Your task to perform on an android device: open a new tab in the chrome app Image 0: 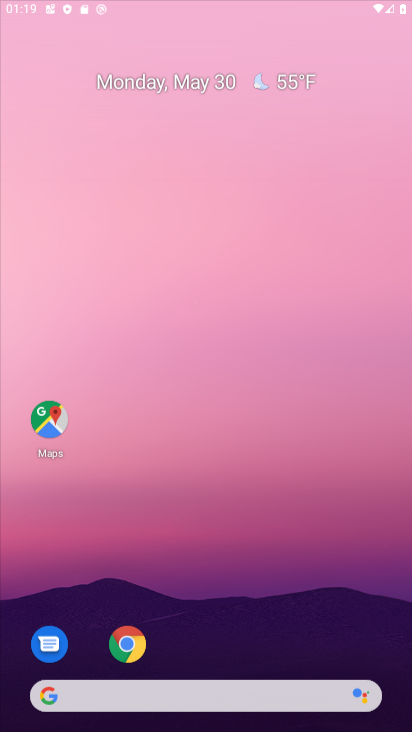
Step 0: click (283, 115)
Your task to perform on an android device: open a new tab in the chrome app Image 1: 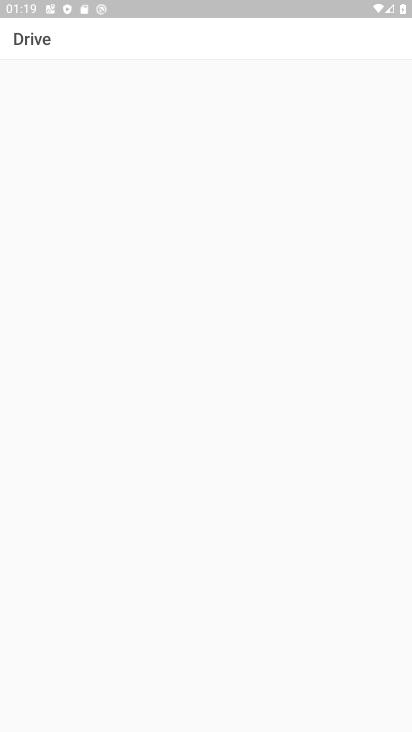
Step 1: press home button
Your task to perform on an android device: open a new tab in the chrome app Image 2: 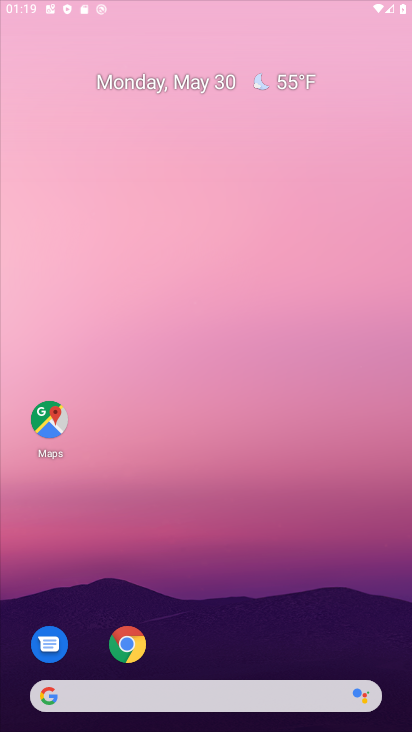
Step 2: drag from (294, 652) to (272, 262)
Your task to perform on an android device: open a new tab in the chrome app Image 3: 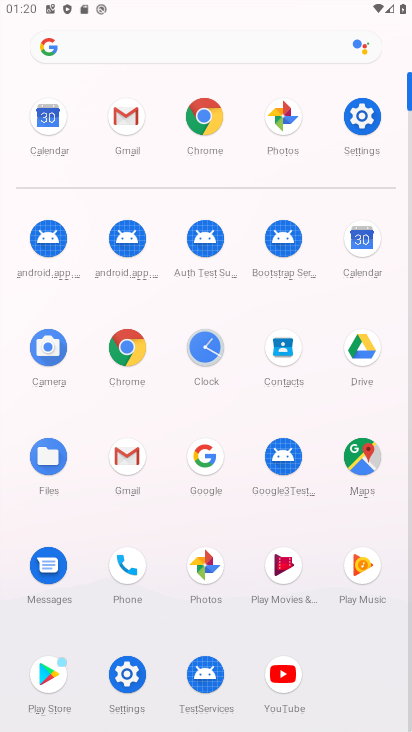
Step 3: click (116, 347)
Your task to perform on an android device: open a new tab in the chrome app Image 4: 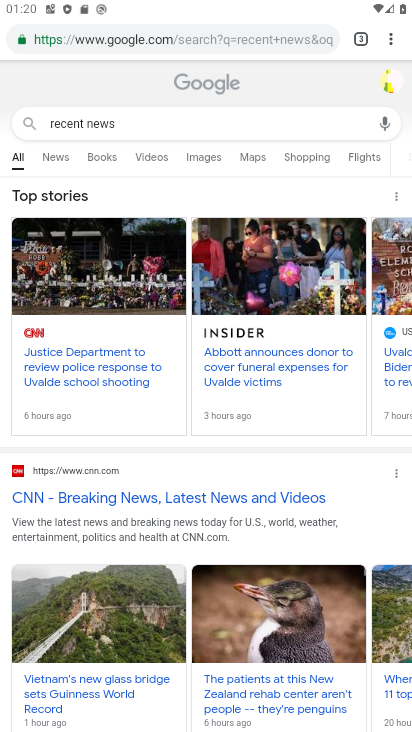
Step 4: click (356, 40)
Your task to perform on an android device: open a new tab in the chrome app Image 5: 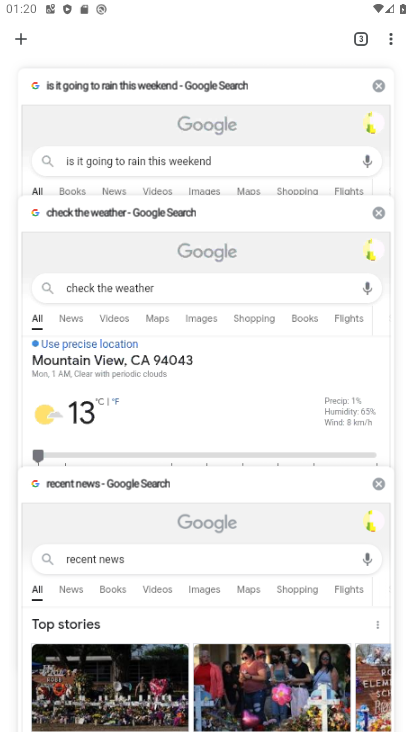
Step 5: click (22, 36)
Your task to perform on an android device: open a new tab in the chrome app Image 6: 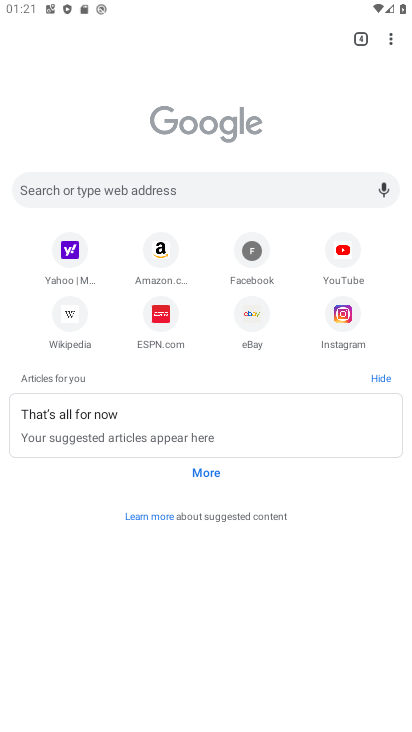
Step 6: task complete